Your task to perform on an android device: Go to Google maps Image 0: 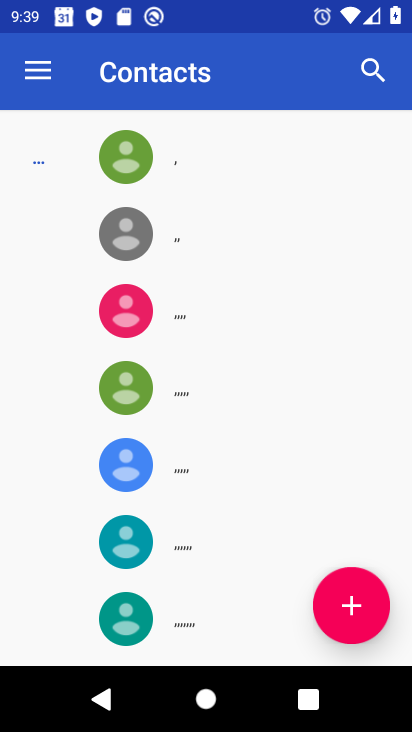
Step 0: press home button
Your task to perform on an android device: Go to Google maps Image 1: 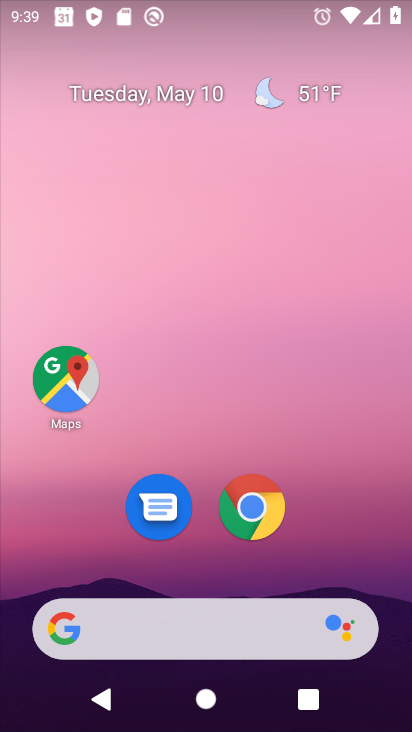
Step 1: drag from (207, 573) to (233, 107)
Your task to perform on an android device: Go to Google maps Image 2: 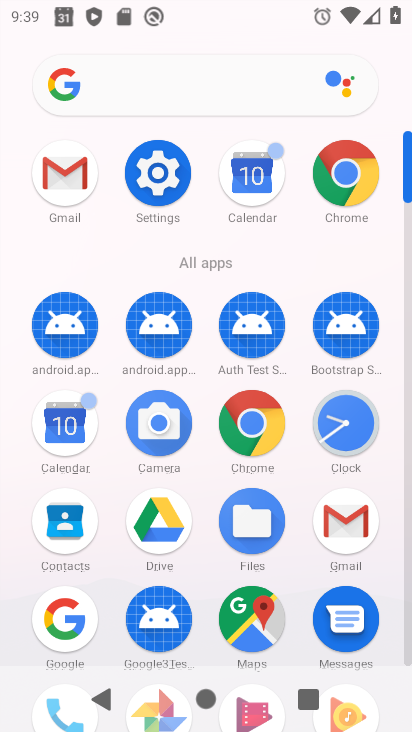
Step 2: drag from (212, 639) to (222, 214)
Your task to perform on an android device: Go to Google maps Image 3: 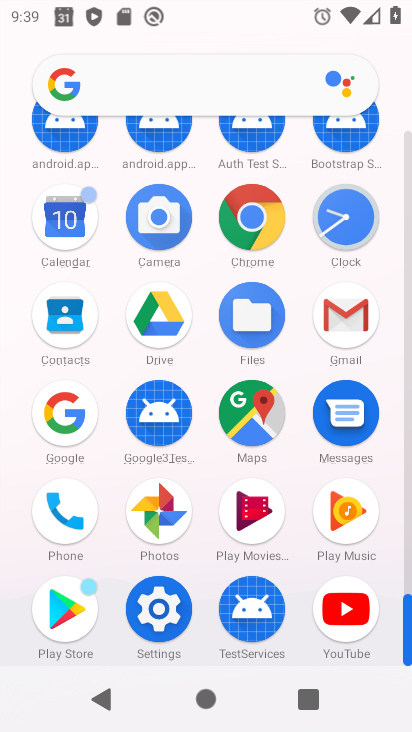
Step 3: click (265, 427)
Your task to perform on an android device: Go to Google maps Image 4: 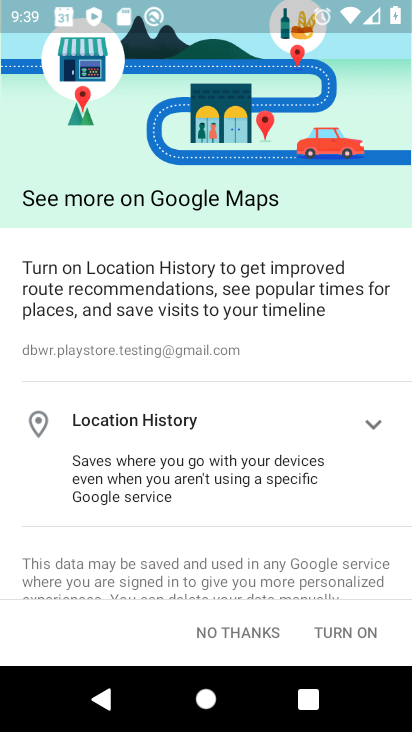
Step 4: task complete